Your task to perform on an android device: turn notification dots on Image 0: 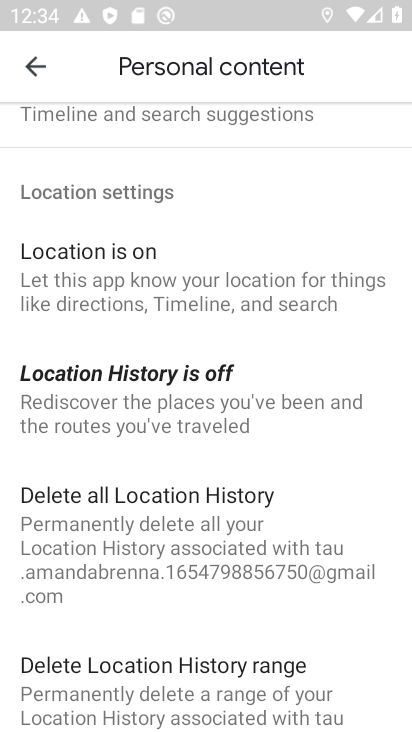
Step 0: press home button
Your task to perform on an android device: turn notification dots on Image 1: 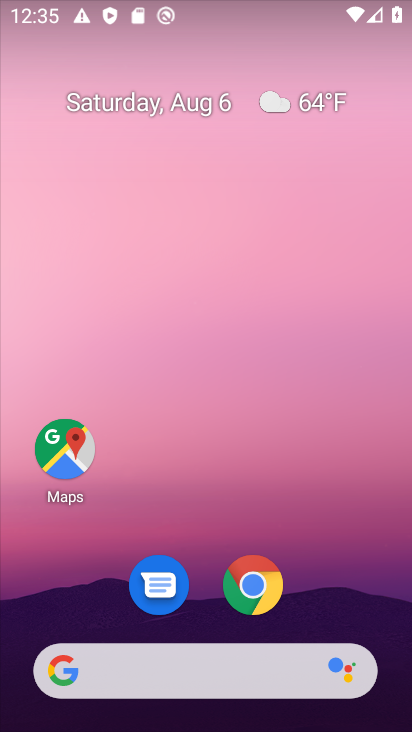
Step 1: drag from (212, 536) to (157, 1)
Your task to perform on an android device: turn notification dots on Image 2: 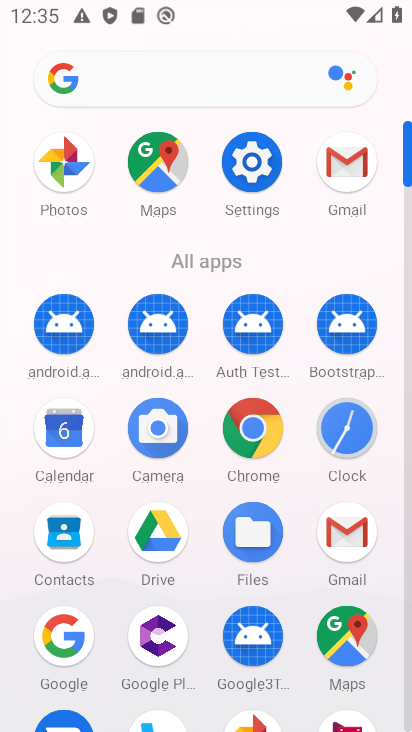
Step 2: click (254, 166)
Your task to perform on an android device: turn notification dots on Image 3: 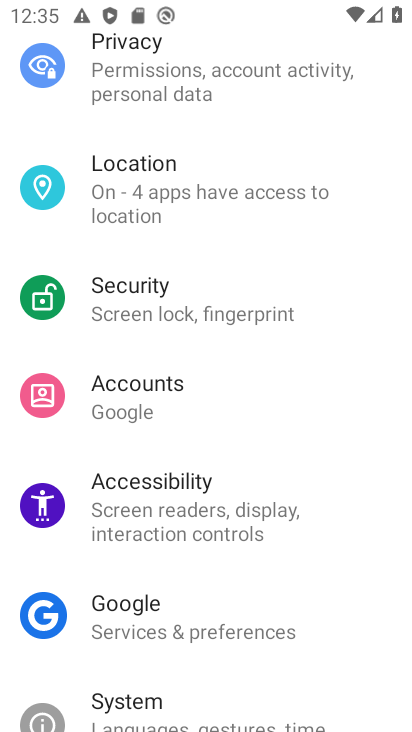
Step 3: drag from (232, 251) to (264, 639)
Your task to perform on an android device: turn notification dots on Image 4: 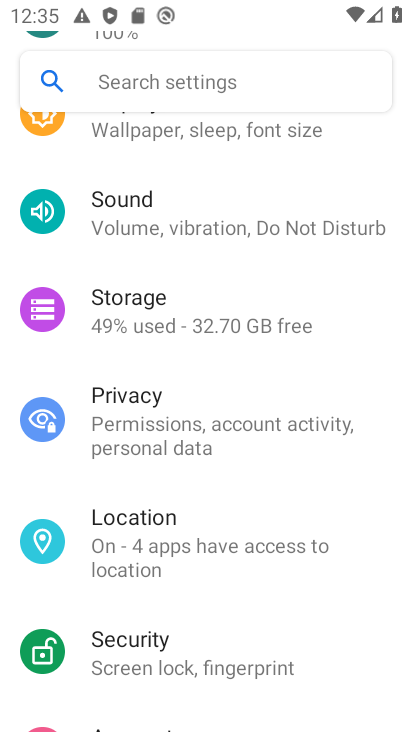
Step 4: drag from (251, 171) to (230, 669)
Your task to perform on an android device: turn notification dots on Image 5: 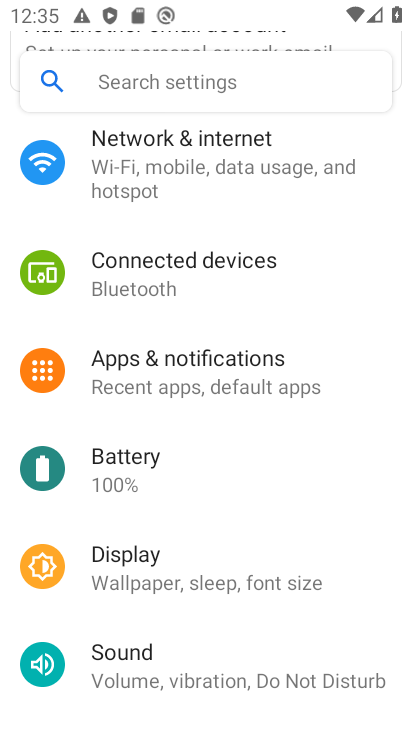
Step 5: click (227, 363)
Your task to perform on an android device: turn notification dots on Image 6: 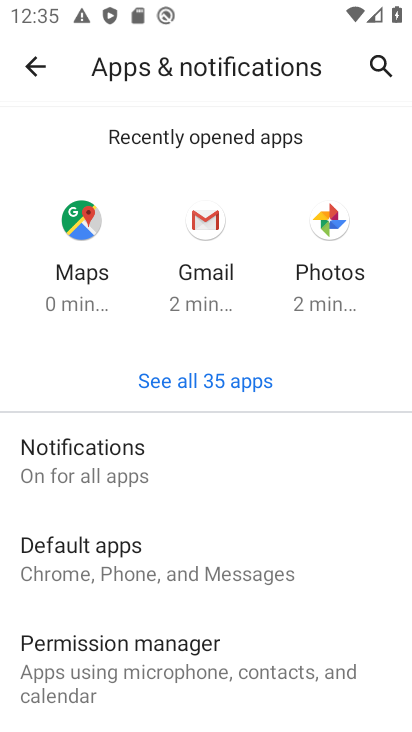
Step 6: click (120, 453)
Your task to perform on an android device: turn notification dots on Image 7: 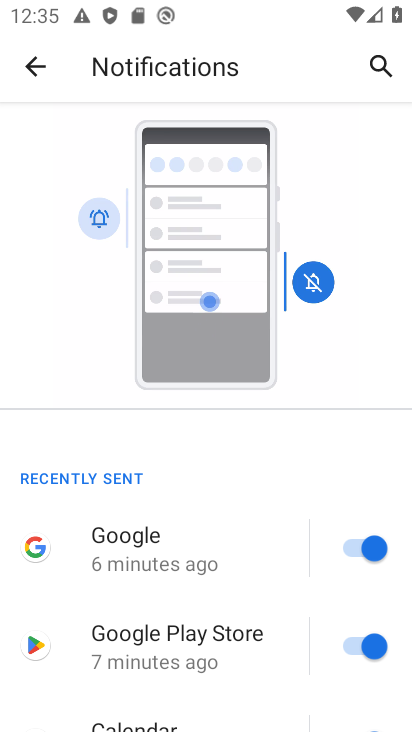
Step 7: drag from (204, 573) to (232, 46)
Your task to perform on an android device: turn notification dots on Image 8: 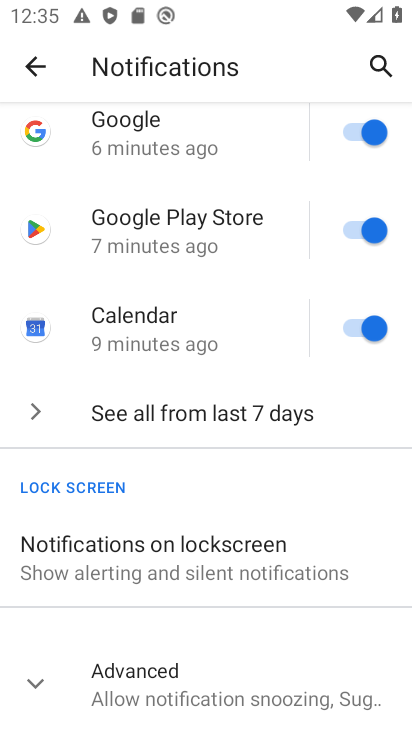
Step 8: click (38, 679)
Your task to perform on an android device: turn notification dots on Image 9: 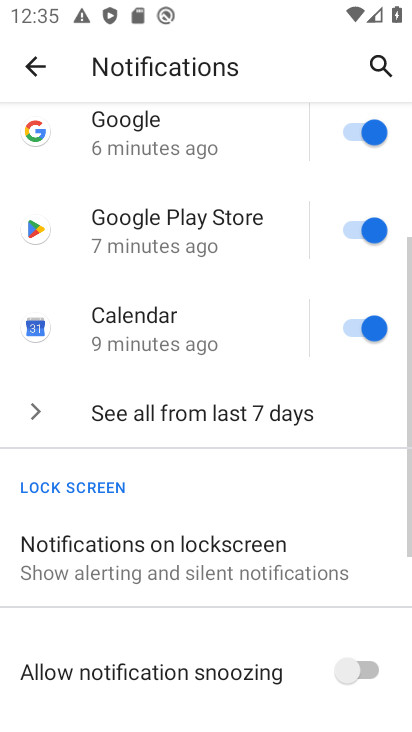
Step 9: task complete